Your task to perform on an android device: turn notification dots on Image 0: 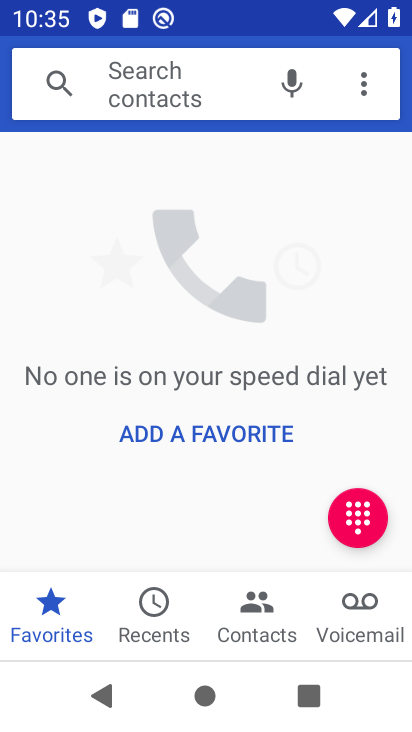
Step 0: press home button
Your task to perform on an android device: turn notification dots on Image 1: 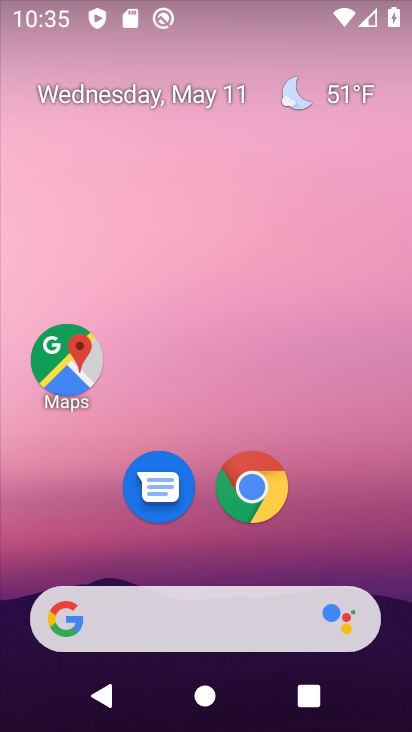
Step 1: drag from (339, 535) to (348, 157)
Your task to perform on an android device: turn notification dots on Image 2: 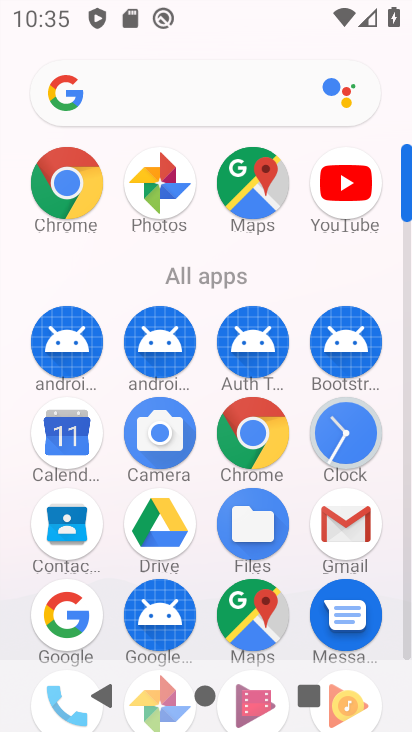
Step 2: drag from (306, 546) to (303, 189)
Your task to perform on an android device: turn notification dots on Image 3: 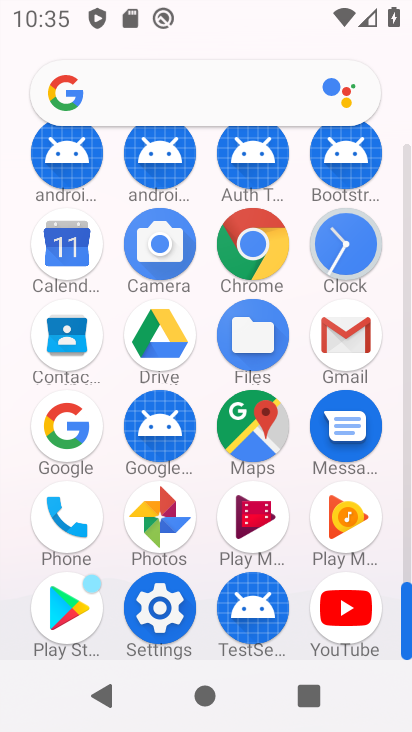
Step 3: click (171, 598)
Your task to perform on an android device: turn notification dots on Image 4: 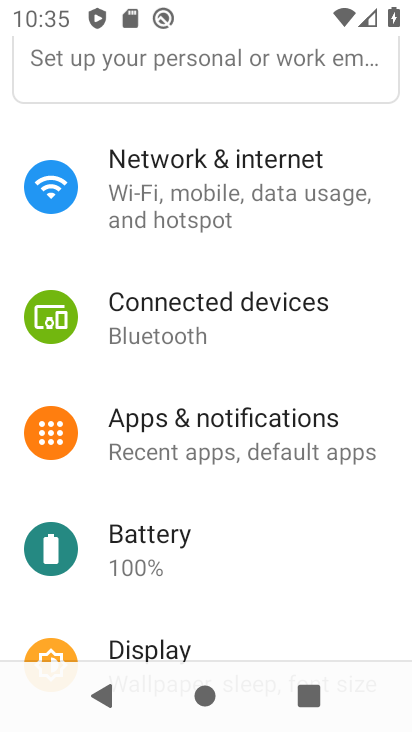
Step 4: click (220, 446)
Your task to perform on an android device: turn notification dots on Image 5: 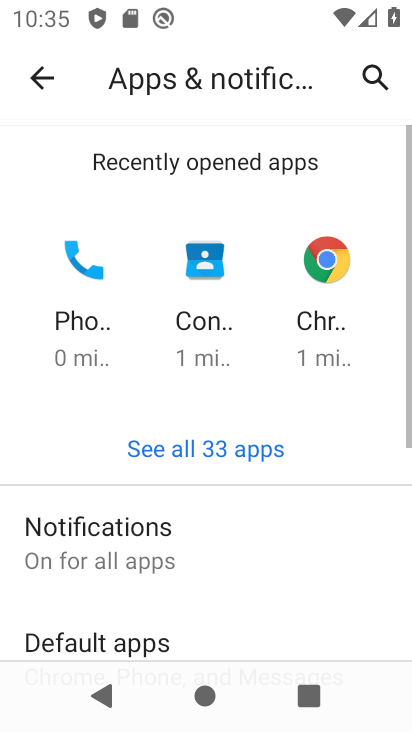
Step 5: click (187, 552)
Your task to perform on an android device: turn notification dots on Image 6: 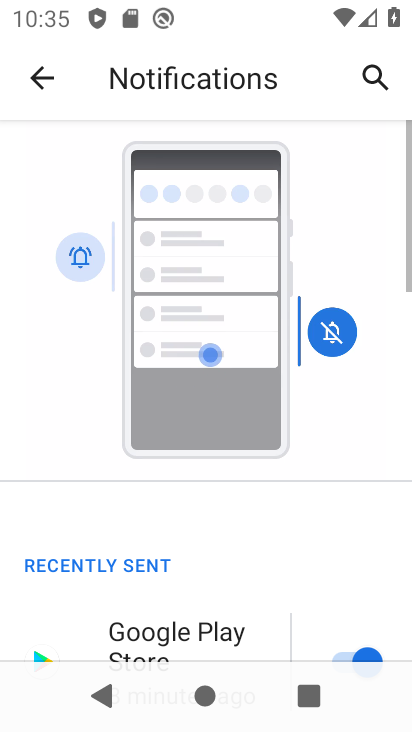
Step 6: drag from (187, 552) to (250, 184)
Your task to perform on an android device: turn notification dots on Image 7: 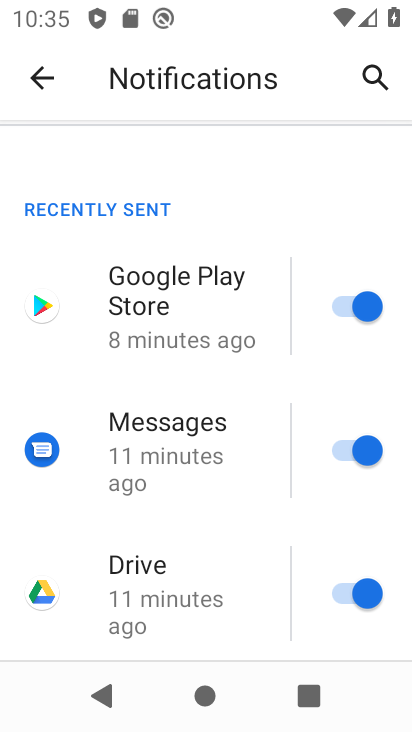
Step 7: drag from (207, 591) to (245, 230)
Your task to perform on an android device: turn notification dots on Image 8: 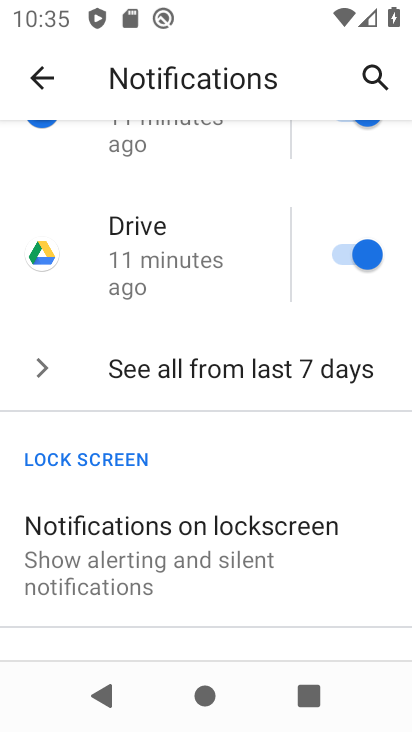
Step 8: drag from (136, 615) to (180, 329)
Your task to perform on an android device: turn notification dots on Image 9: 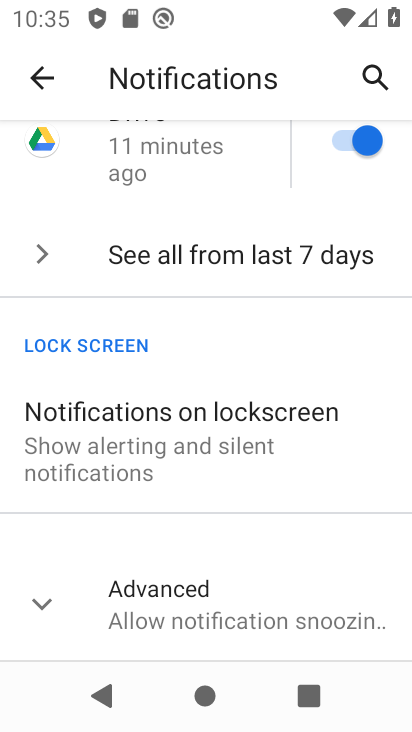
Step 9: click (50, 610)
Your task to perform on an android device: turn notification dots on Image 10: 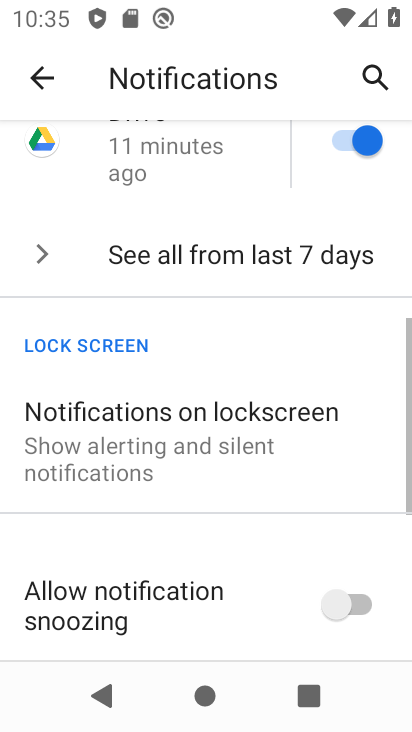
Step 10: task complete